Your task to perform on an android device: install app "eBay: The shopping marketplace" Image 0: 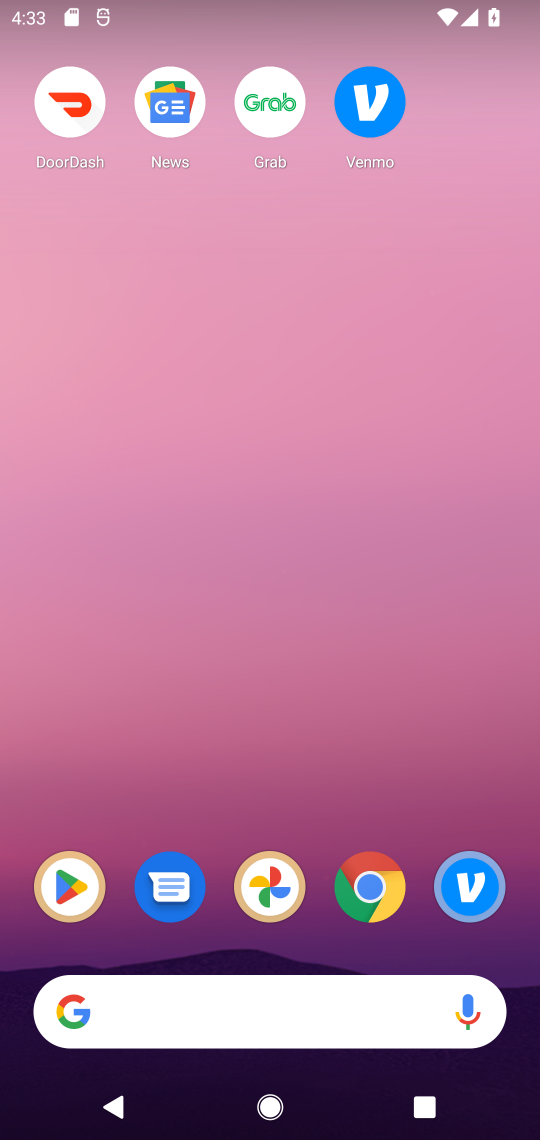
Step 0: click (61, 893)
Your task to perform on an android device: install app "eBay: The shopping marketplace" Image 1: 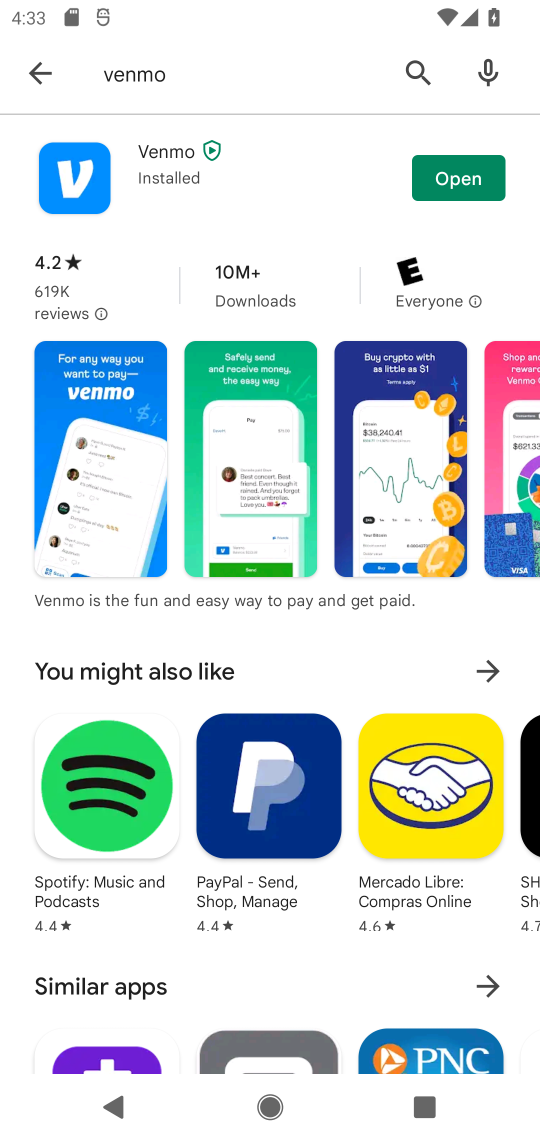
Step 1: click (32, 45)
Your task to perform on an android device: install app "eBay: The shopping marketplace" Image 2: 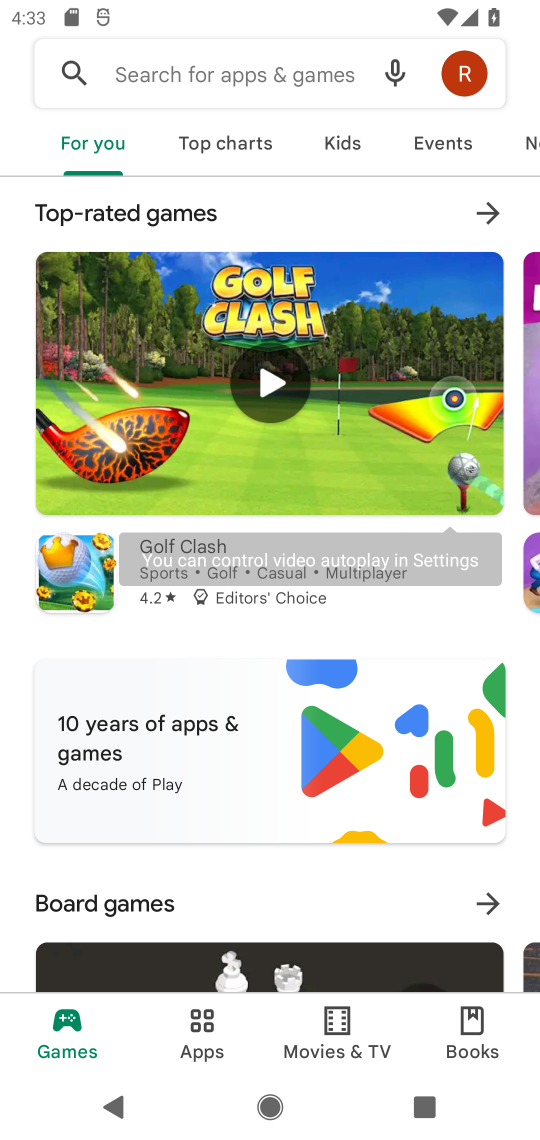
Step 2: click (187, 83)
Your task to perform on an android device: install app "eBay: The shopping marketplace" Image 3: 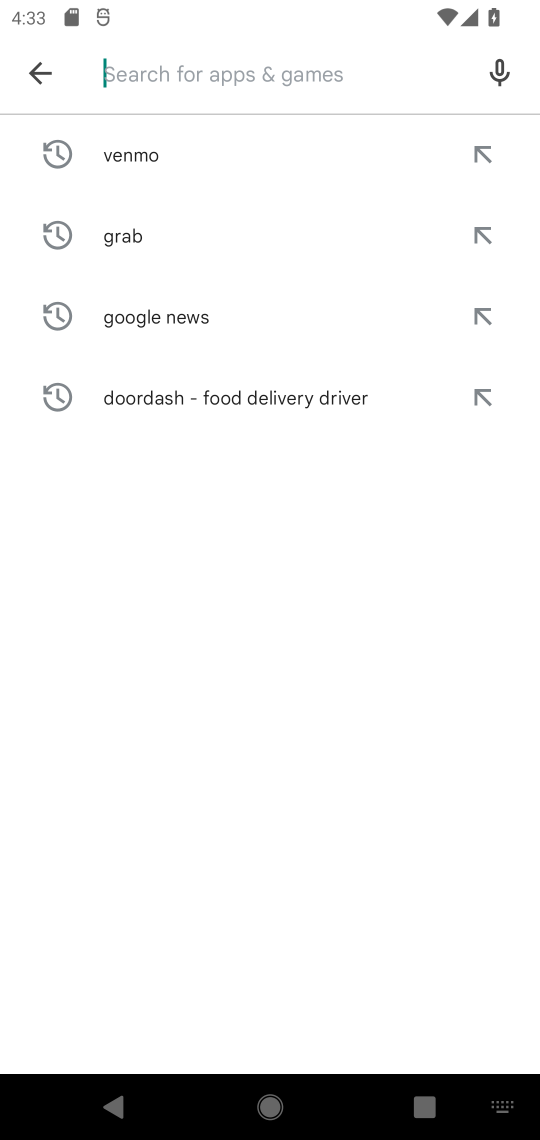
Step 3: type "eBay"
Your task to perform on an android device: install app "eBay: The shopping marketplace" Image 4: 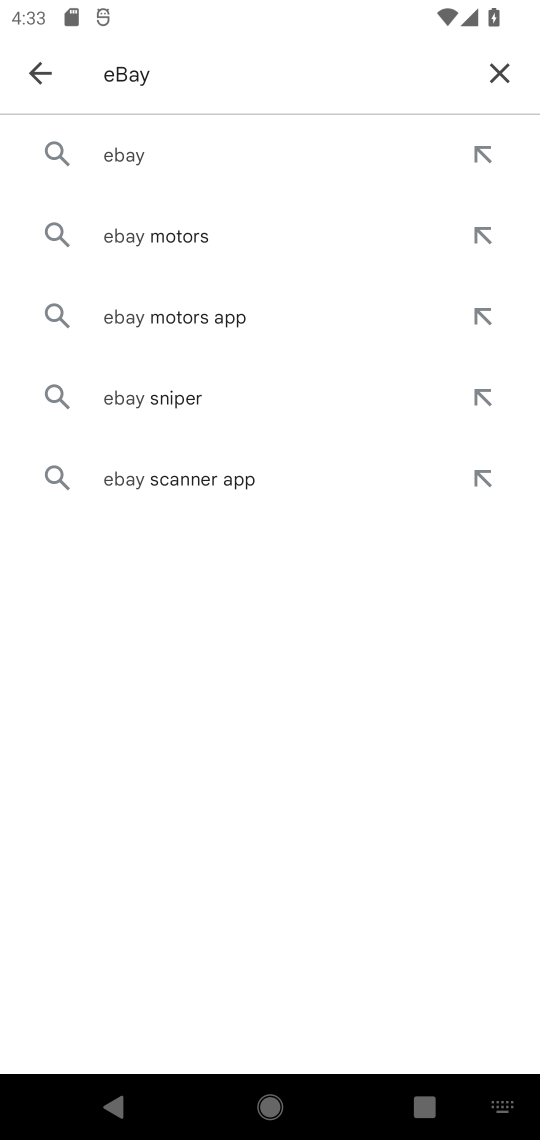
Step 4: click (116, 166)
Your task to perform on an android device: install app "eBay: The shopping marketplace" Image 5: 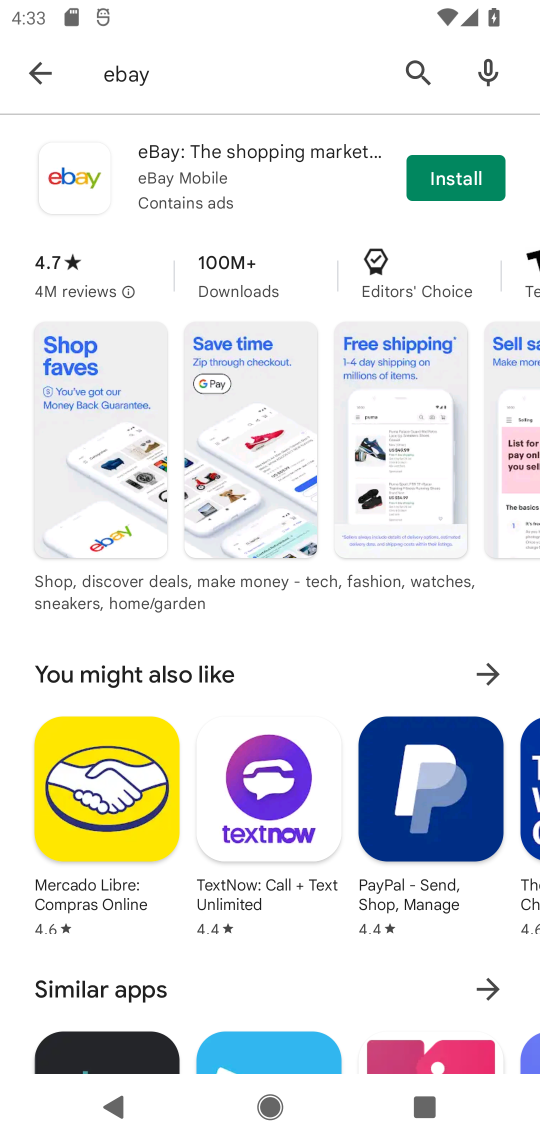
Step 5: click (462, 186)
Your task to perform on an android device: install app "eBay: The shopping marketplace" Image 6: 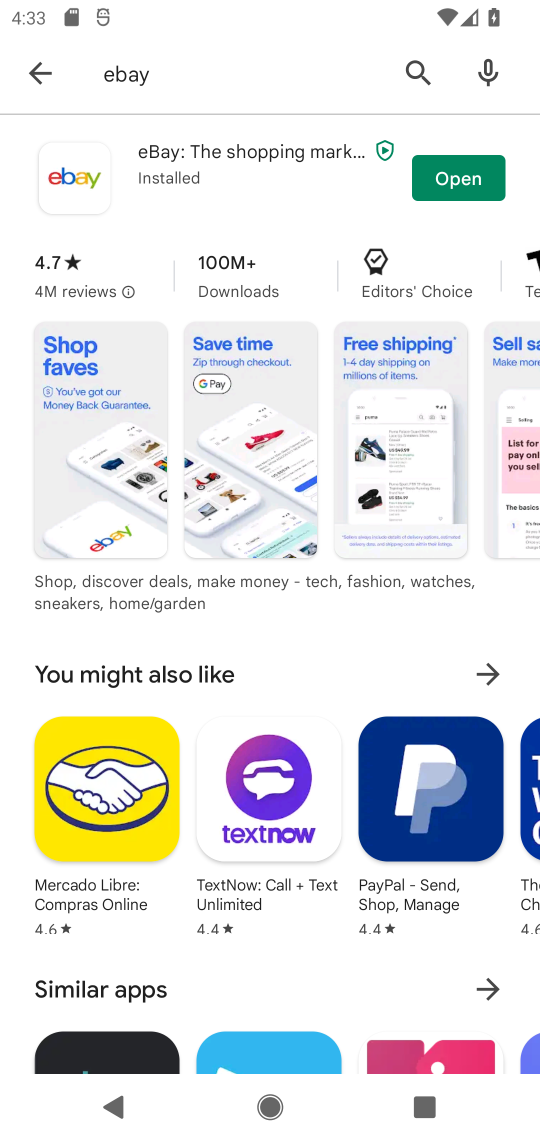
Step 6: click (460, 175)
Your task to perform on an android device: install app "eBay: The shopping marketplace" Image 7: 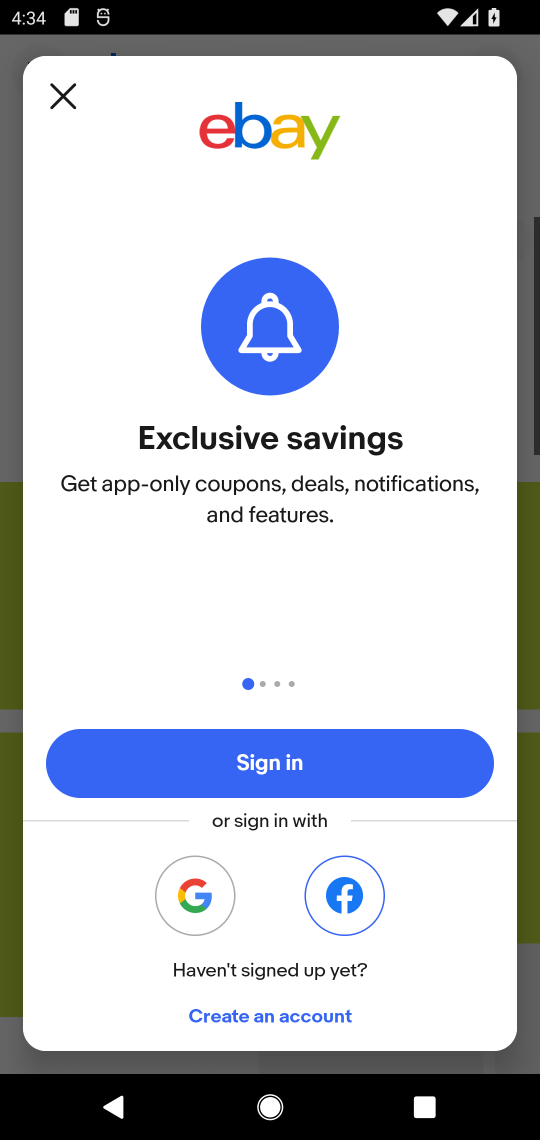
Step 7: task complete